Your task to perform on an android device: Open Yahoo.com Image 0: 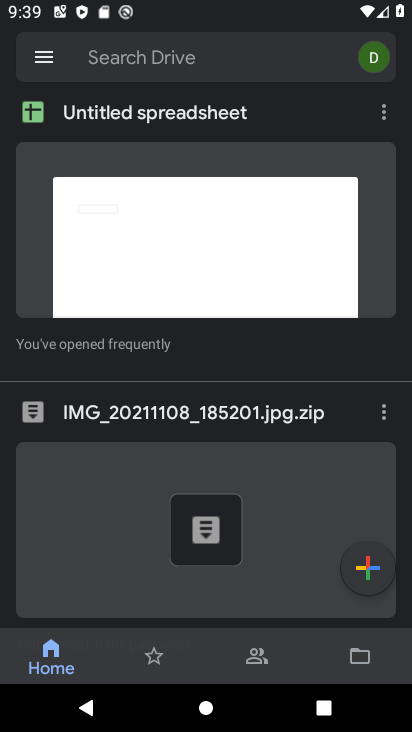
Step 0: press home button
Your task to perform on an android device: Open Yahoo.com Image 1: 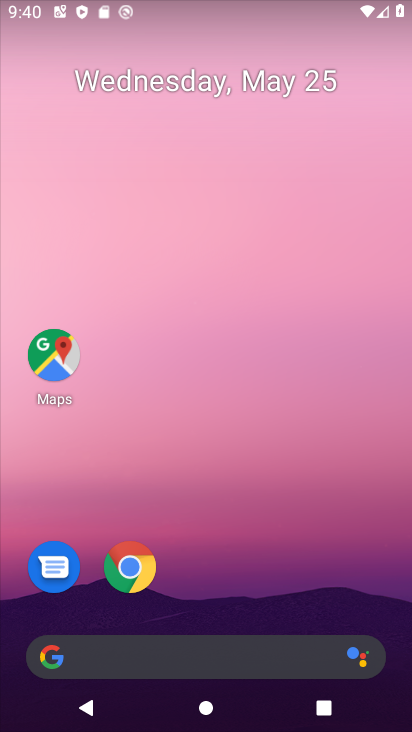
Step 1: click (161, 647)
Your task to perform on an android device: Open Yahoo.com Image 2: 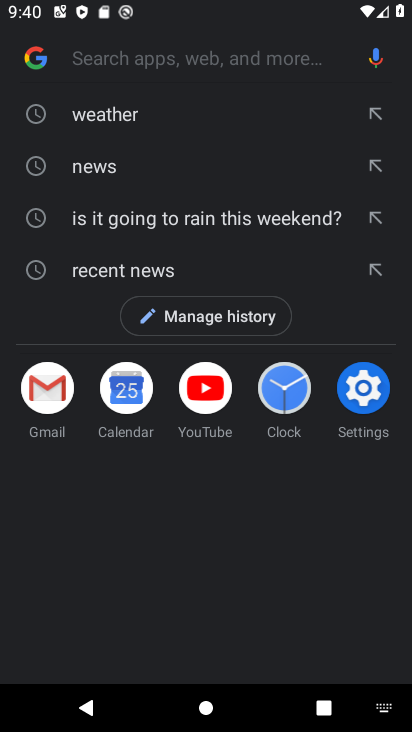
Step 2: type "yahoo.com"
Your task to perform on an android device: Open Yahoo.com Image 3: 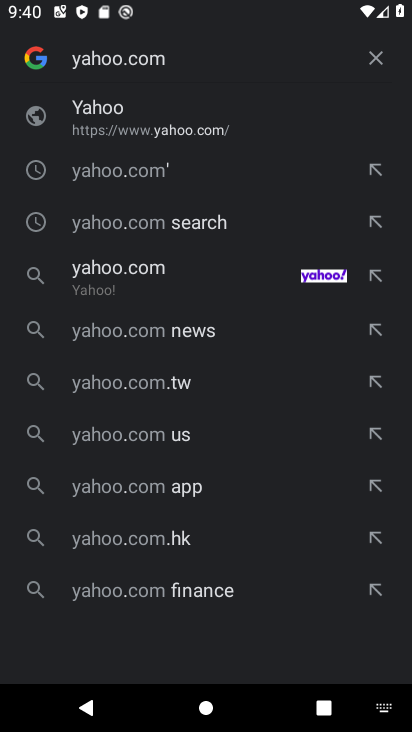
Step 3: task complete